Your task to perform on an android device: open a bookmark in the chrome app Image 0: 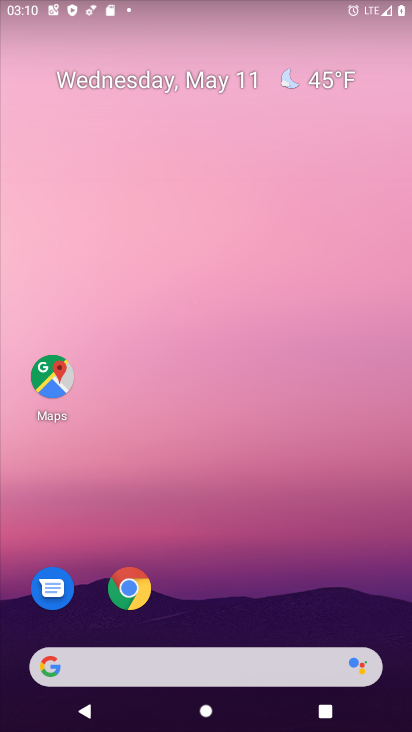
Step 0: click (124, 593)
Your task to perform on an android device: open a bookmark in the chrome app Image 1: 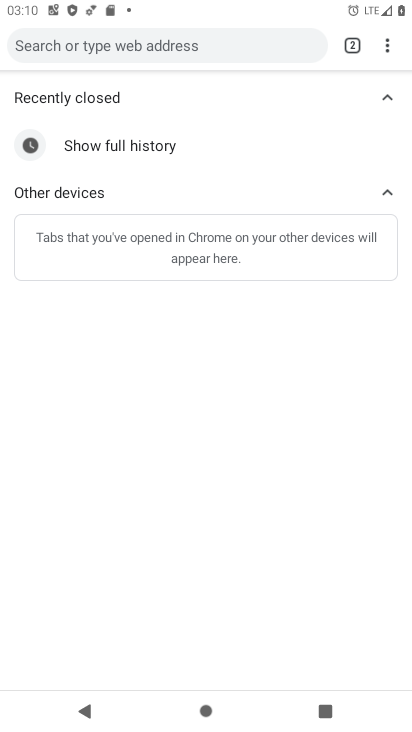
Step 1: drag from (391, 45) to (312, 176)
Your task to perform on an android device: open a bookmark in the chrome app Image 2: 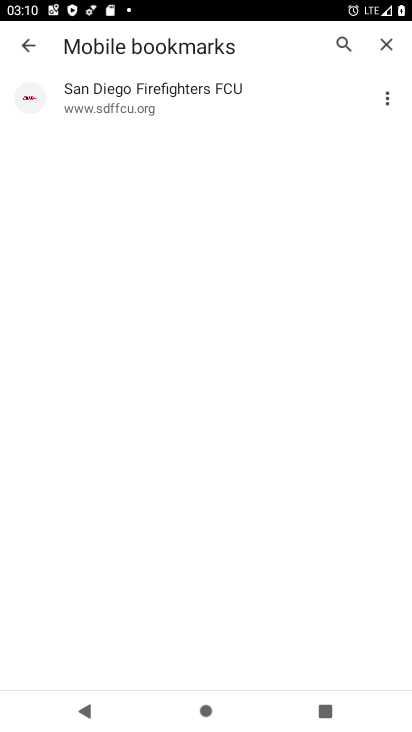
Step 2: click (156, 114)
Your task to perform on an android device: open a bookmark in the chrome app Image 3: 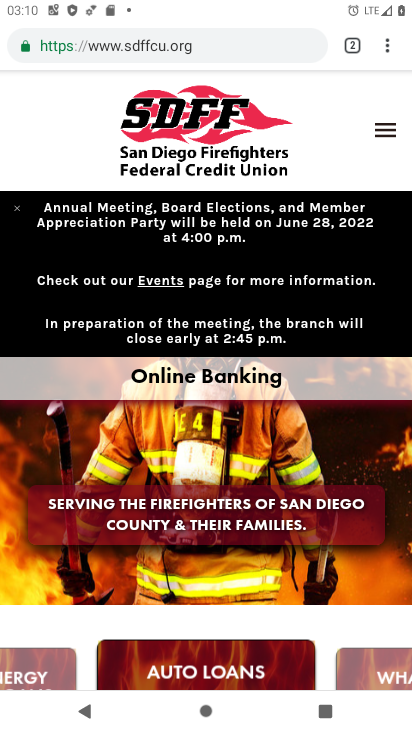
Step 3: task complete